Your task to perform on an android device: change the clock display to show seconds Image 0: 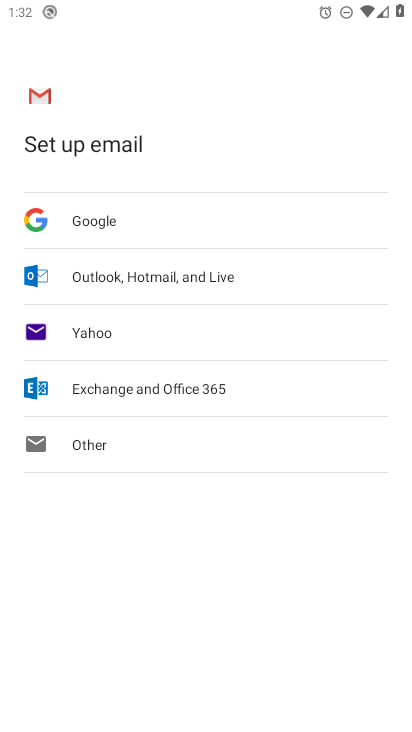
Step 0: press home button
Your task to perform on an android device: change the clock display to show seconds Image 1: 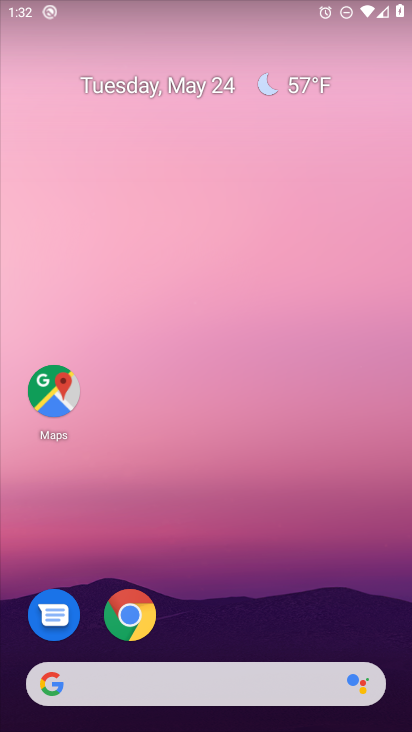
Step 1: drag from (224, 659) to (190, 125)
Your task to perform on an android device: change the clock display to show seconds Image 2: 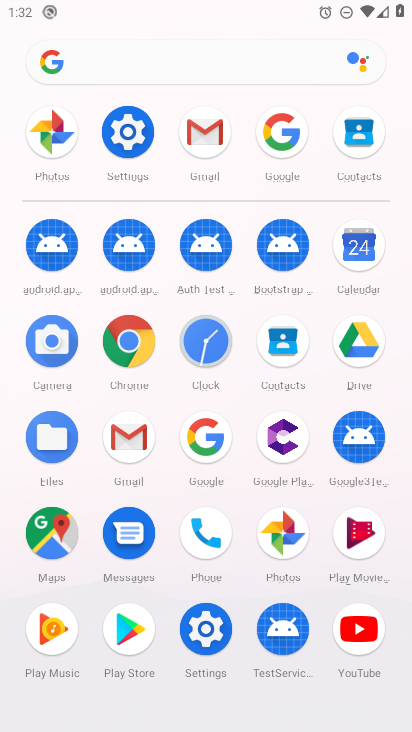
Step 2: click (205, 333)
Your task to perform on an android device: change the clock display to show seconds Image 3: 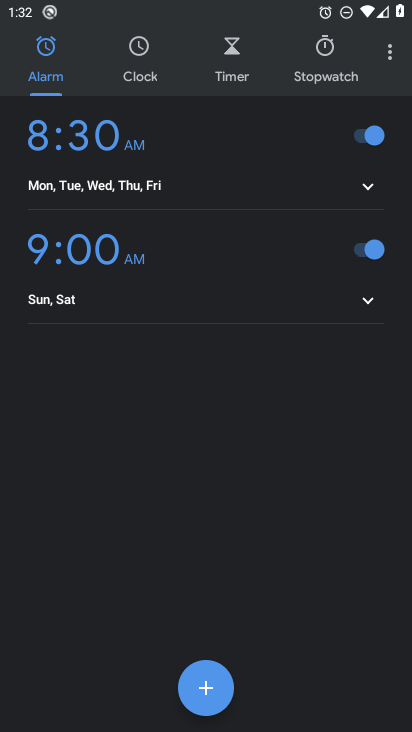
Step 3: click (385, 57)
Your task to perform on an android device: change the clock display to show seconds Image 4: 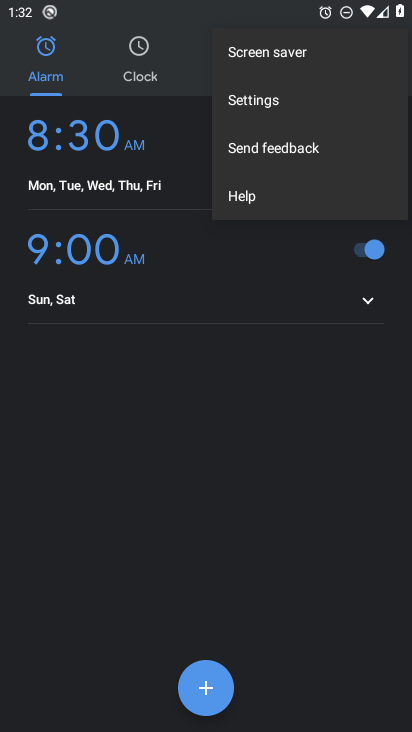
Step 4: click (230, 97)
Your task to perform on an android device: change the clock display to show seconds Image 5: 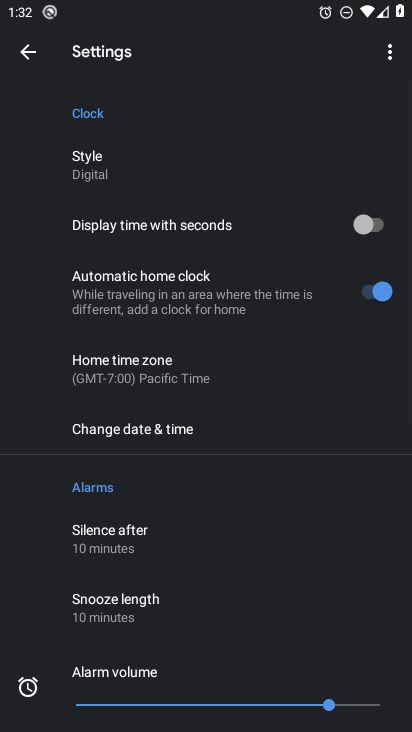
Step 5: task complete